Your task to perform on an android device: Open Chrome and go to settings Image 0: 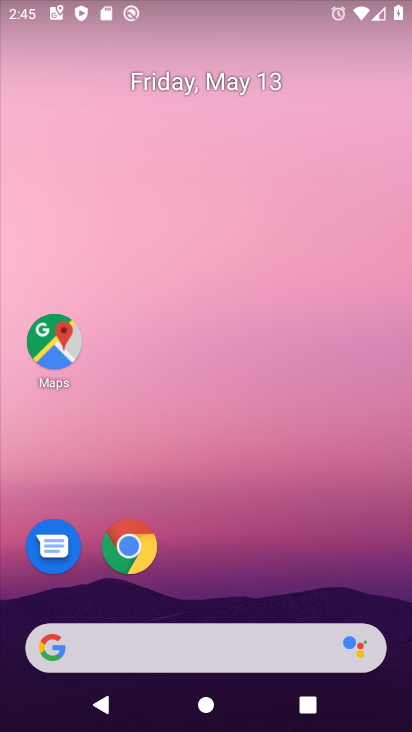
Step 0: drag from (271, 570) to (263, 82)
Your task to perform on an android device: Open Chrome and go to settings Image 1: 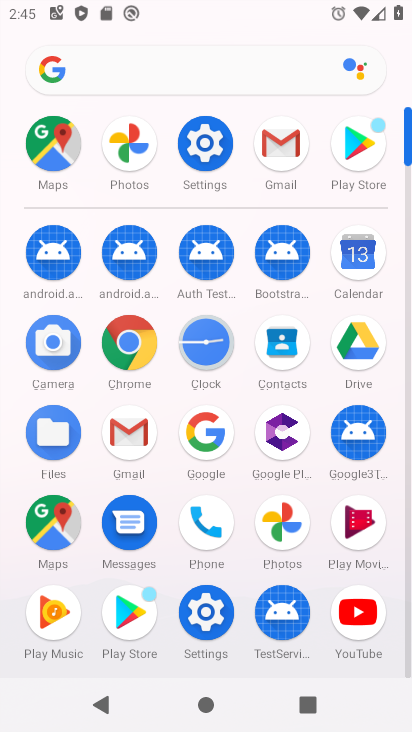
Step 1: click (127, 356)
Your task to perform on an android device: Open Chrome and go to settings Image 2: 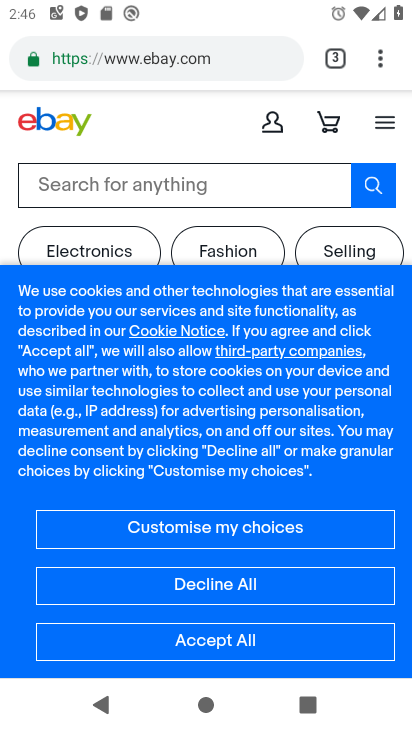
Step 2: click (379, 53)
Your task to perform on an android device: Open Chrome and go to settings Image 3: 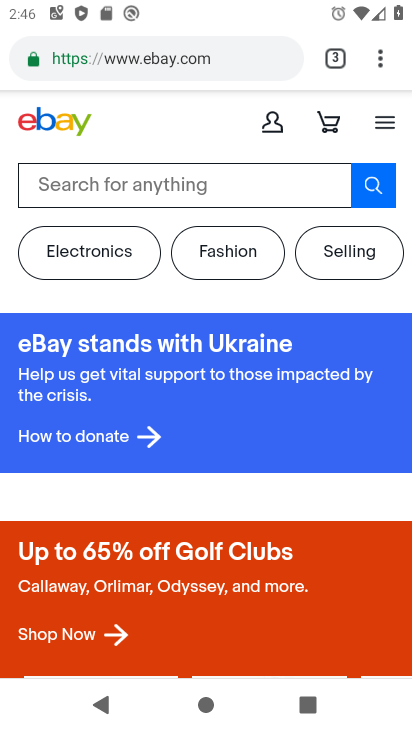
Step 3: task complete